Your task to perform on an android device: Open Google Chrome Image 0: 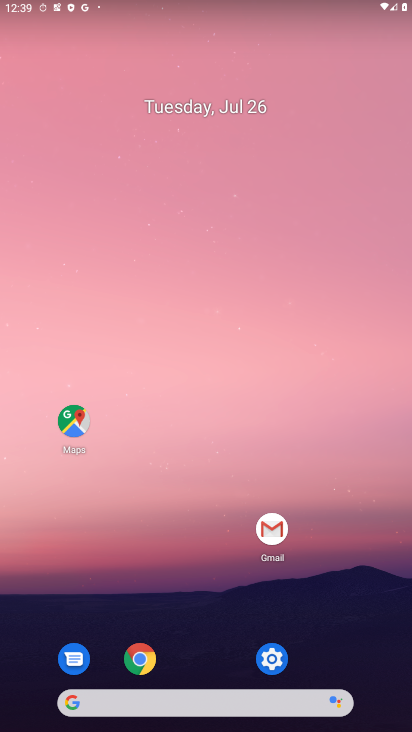
Step 0: click (146, 652)
Your task to perform on an android device: Open Google Chrome Image 1: 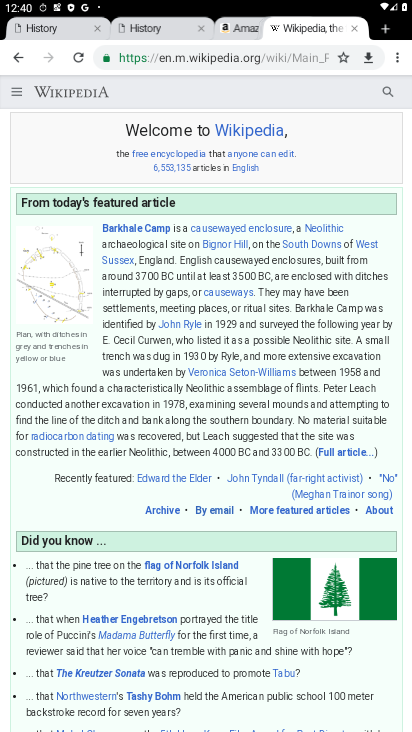
Step 1: click (382, 33)
Your task to perform on an android device: Open Google Chrome Image 2: 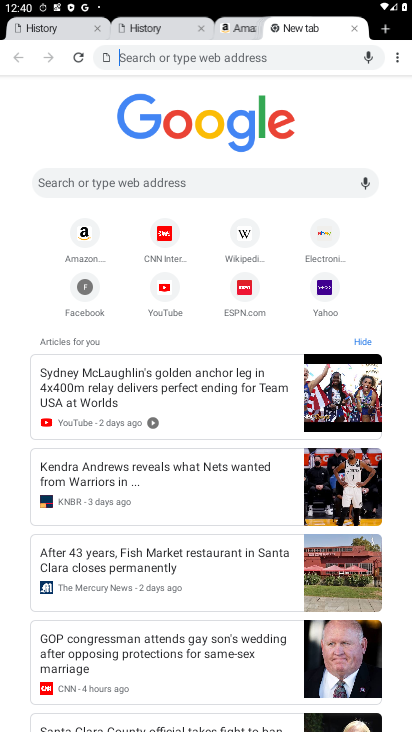
Step 2: click (151, 148)
Your task to perform on an android device: Open Google Chrome Image 3: 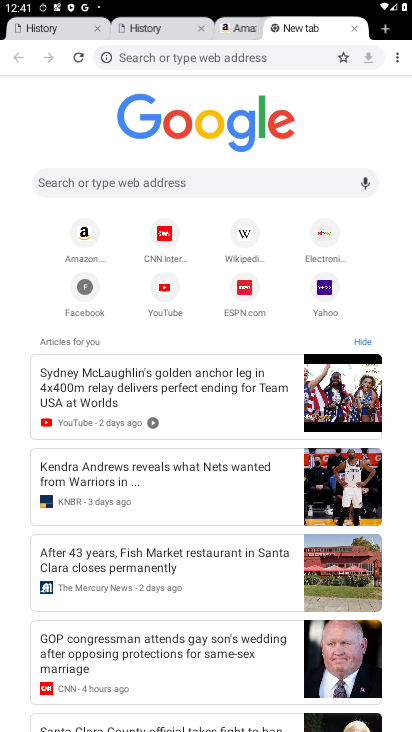
Step 3: task complete